Your task to perform on an android device: What is the recent news? Image 0: 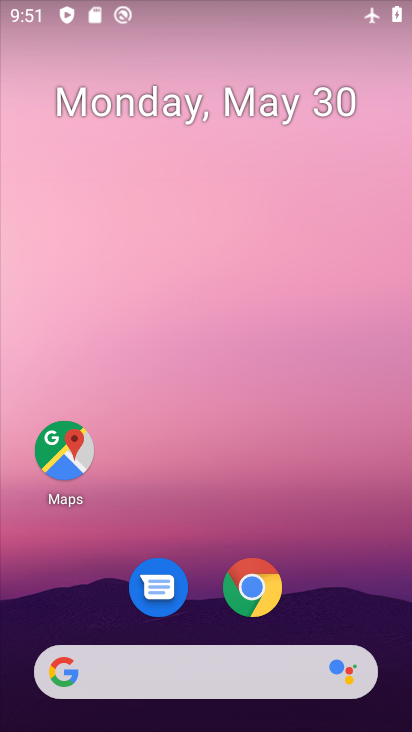
Step 0: drag from (333, 560) to (208, 21)
Your task to perform on an android device: What is the recent news? Image 1: 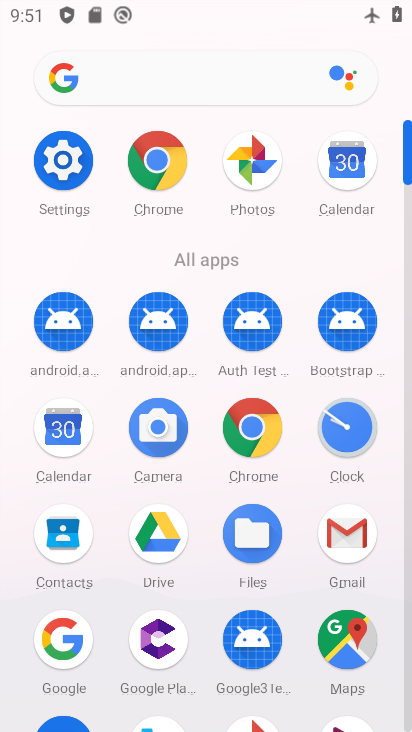
Step 1: drag from (11, 586) to (26, 280)
Your task to perform on an android device: What is the recent news? Image 2: 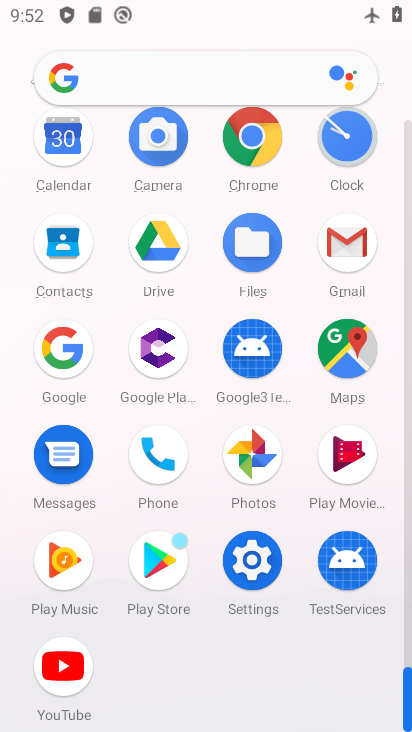
Step 2: click (252, 129)
Your task to perform on an android device: What is the recent news? Image 3: 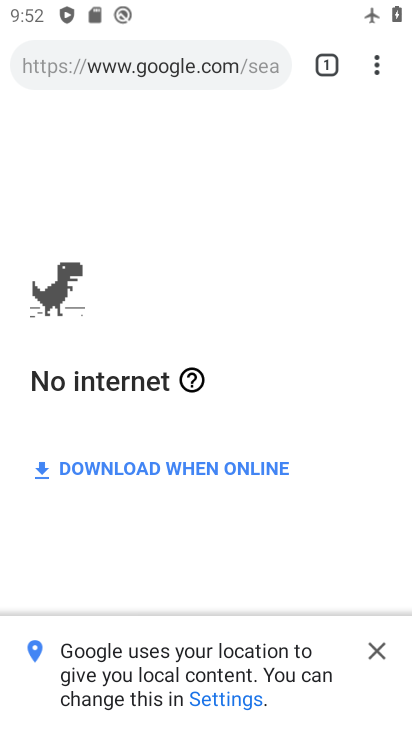
Step 3: drag from (322, 5) to (327, 347)
Your task to perform on an android device: What is the recent news? Image 4: 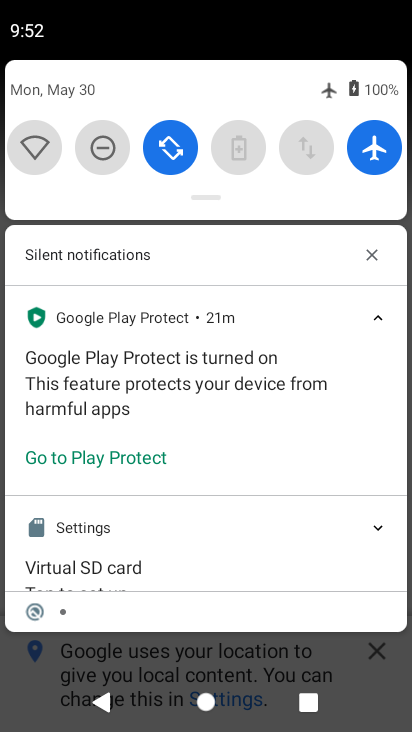
Step 4: click (24, 143)
Your task to perform on an android device: What is the recent news? Image 5: 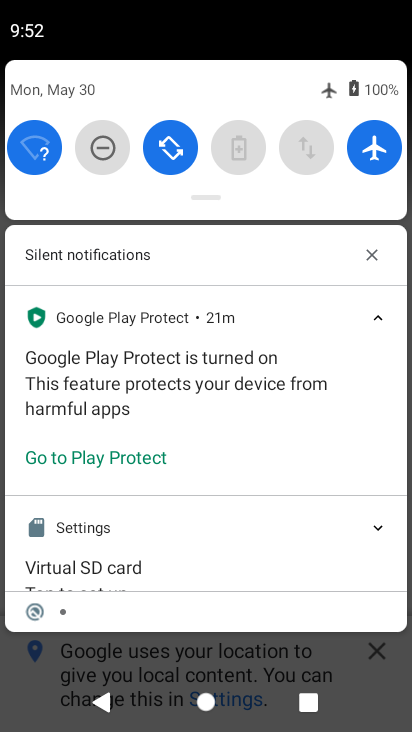
Step 5: drag from (372, 649) to (354, 292)
Your task to perform on an android device: What is the recent news? Image 6: 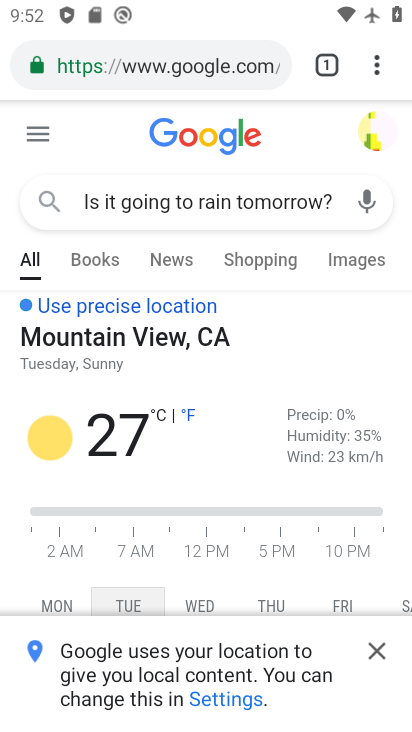
Step 6: click (198, 67)
Your task to perform on an android device: What is the recent news? Image 7: 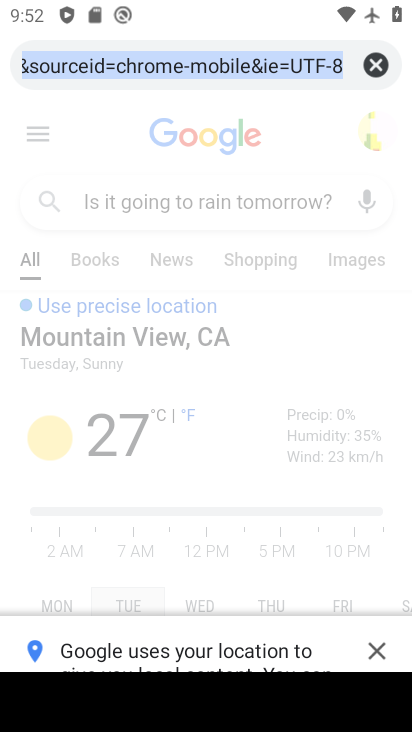
Step 7: click (374, 56)
Your task to perform on an android device: What is the recent news? Image 8: 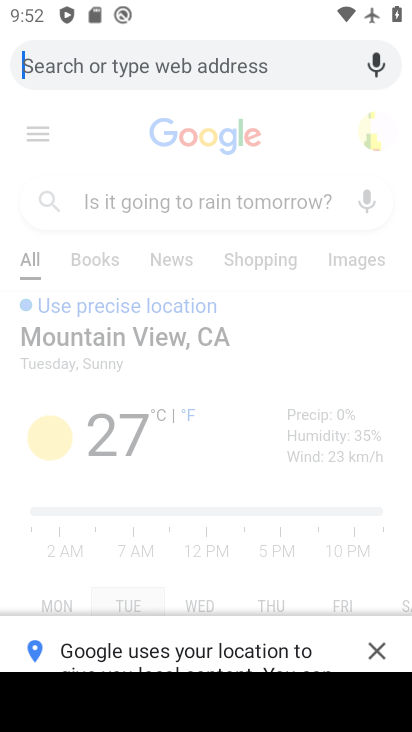
Step 8: type "What is the recent news?"
Your task to perform on an android device: What is the recent news? Image 9: 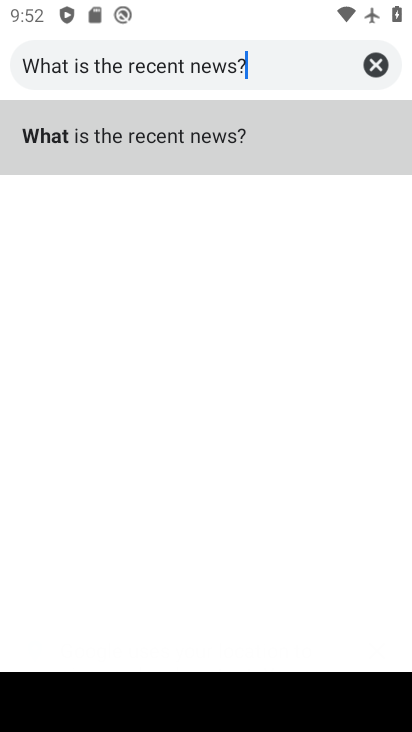
Step 9: type ""
Your task to perform on an android device: What is the recent news? Image 10: 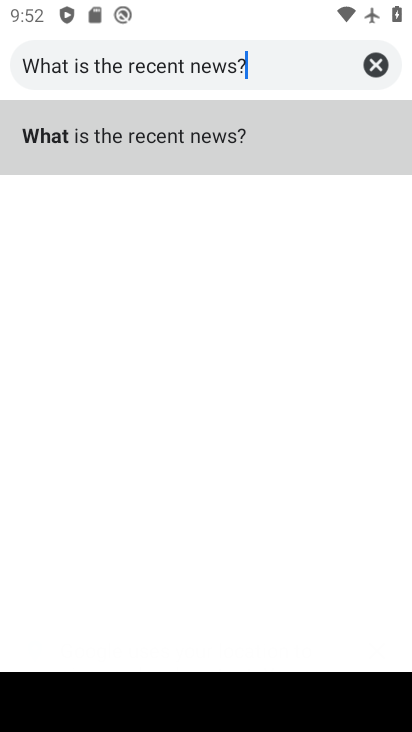
Step 10: click (216, 140)
Your task to perform on an android device: What is the recent news? Image 11: 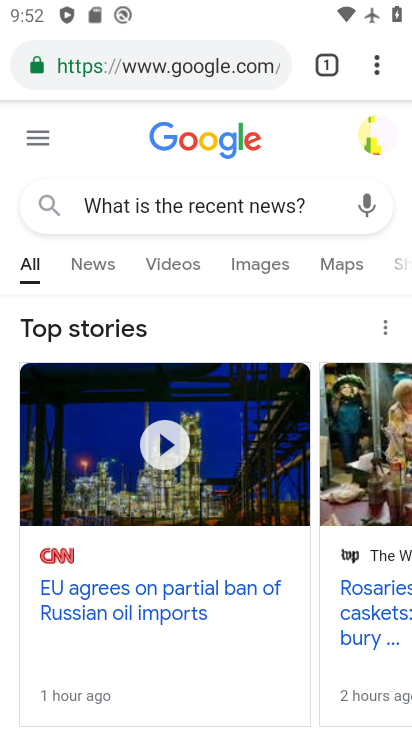
Step 11: task complete